Your task to perform on an android device: open wifi settings Image 0: 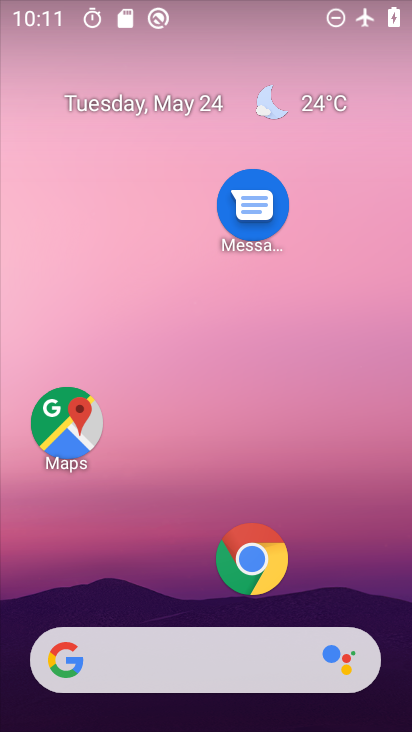
Step 0: drag from (162, 597) to (162, 107)
Your task to perform on an android device: open wifi settings Image 1: 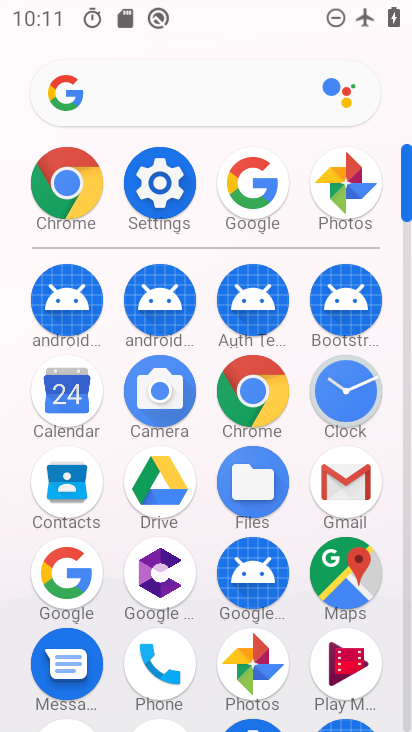
Step 1: click (159, 161)
Your task to perform on an android device: open wifi settings Image 2: 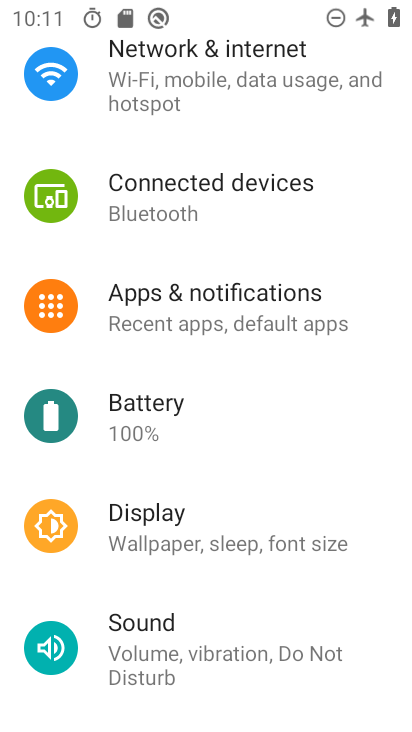
Step 2: click (176, 115)
Your task to perform on an android device: open wifi settings Image 3: 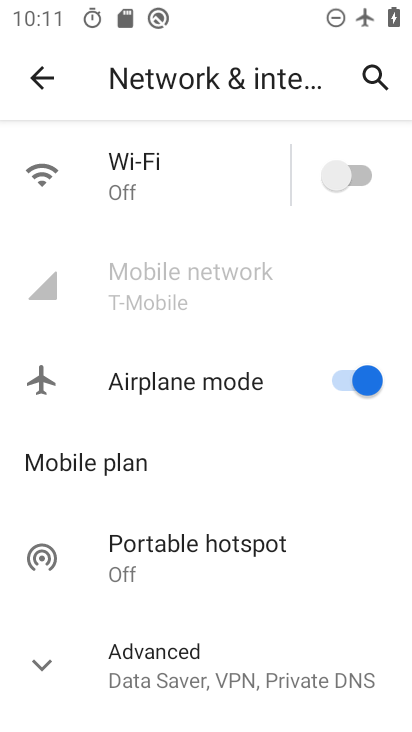
Step 3: click (167, 219)
Your task to perform on an android device: open wifi settings Image 4: 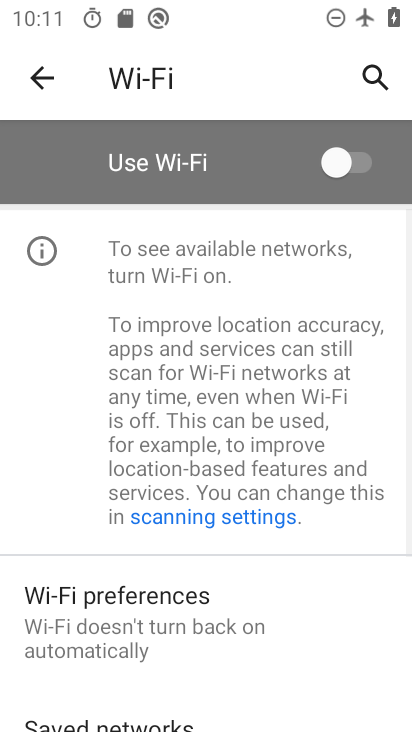
Step 4: task complete